Your task to perform on an android device: What is the recent news? Image 0: 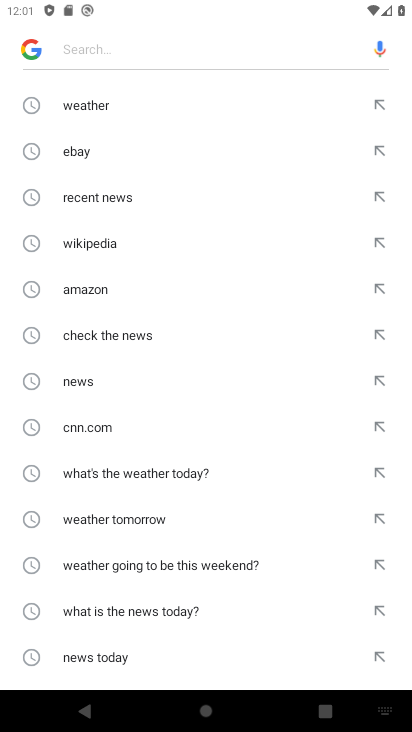
Step 0: type "What is the recent news?"
Your task to perform on an android device: What is the recent news? Image 1: 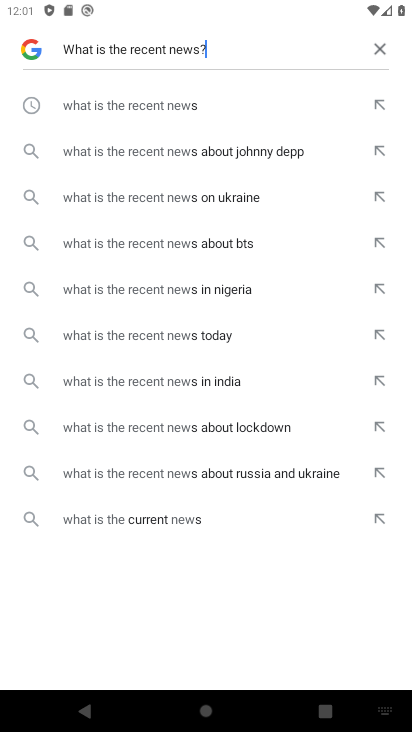
Step 1: type ""
Your task to perform on an android device: What is the recent news? Image 2: 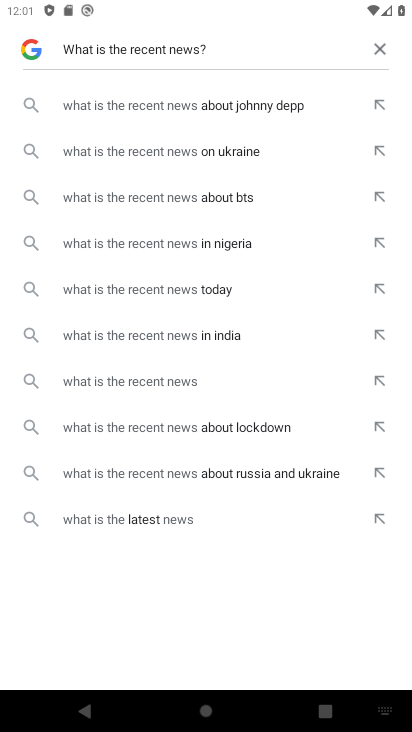
Step 2: type ""
Your task to perform on an android device: What is the recent news? Image 3: 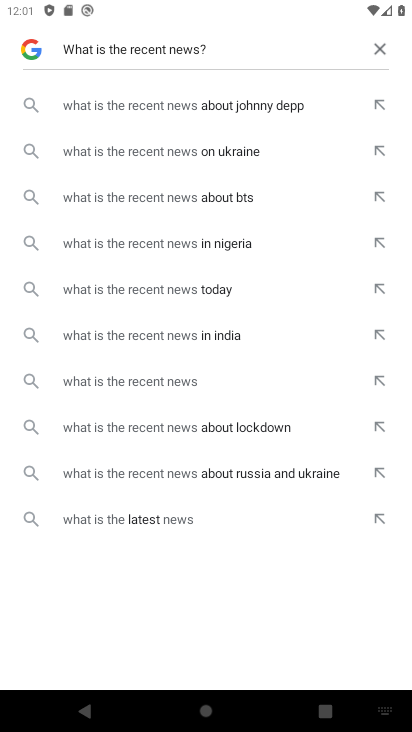
Step 3: type ""
Your task to perform on an android device: What is the recent news? Image 4: 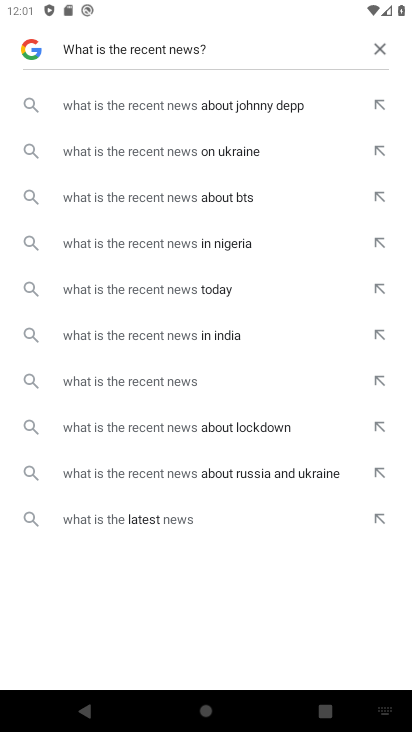
Step 4: task complete